Your task to perform on an android device: turn on wifi Image 0: 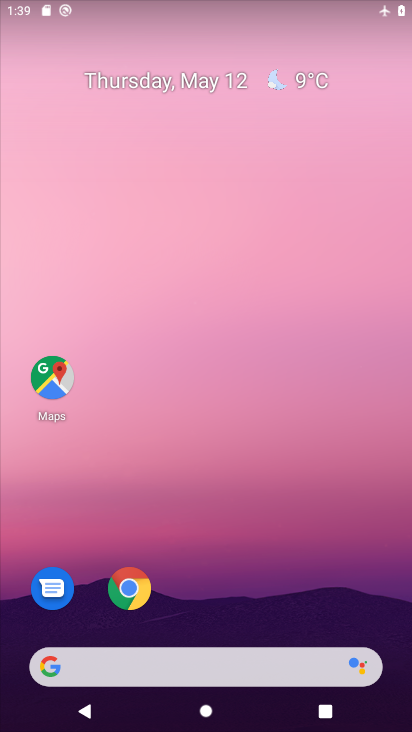
Step 0: drag from (274, 553) to (180, 46)
Your task to perform on an android device: turn on wifi Image 1: 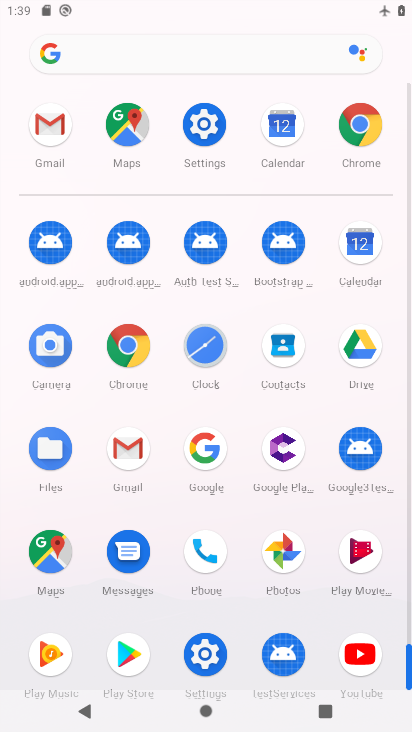
Step 1: click (209, 111)
Your task to perform on an android device: turn on wifi Image 2: 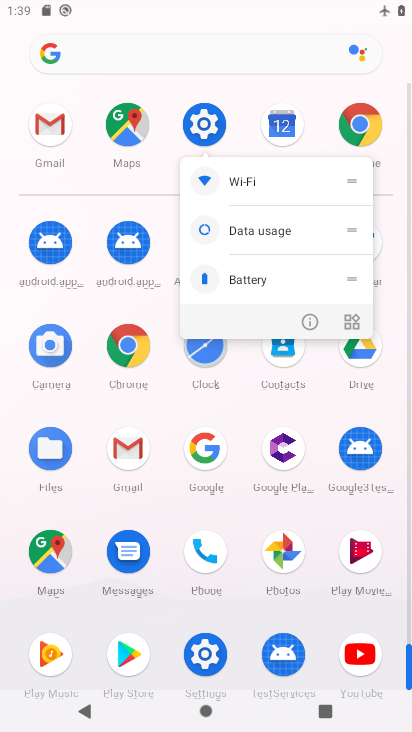
Step 2: click (214, 117)
Your task to perform on an android device: turn on wifi Image 3: 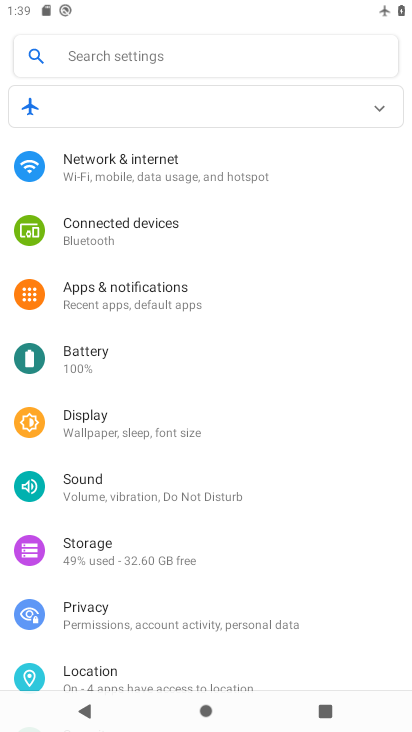
Step 3: click (190, 165)
Your task to perform on an android device: turn on wifi Image 4: 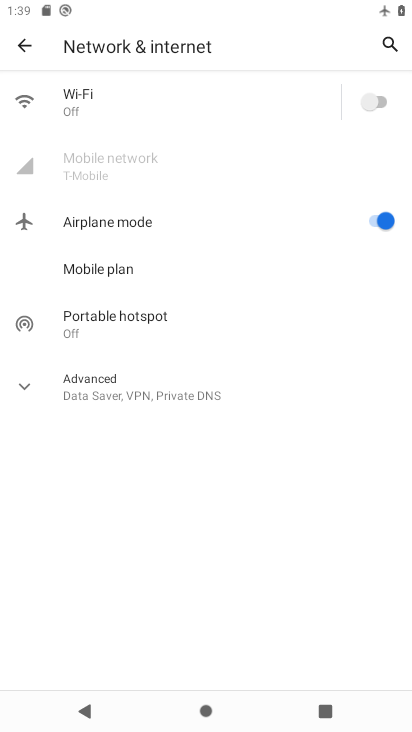
Step 4: click (382, 119)
Your task to perform on an android device: turn on wifi Image 5: 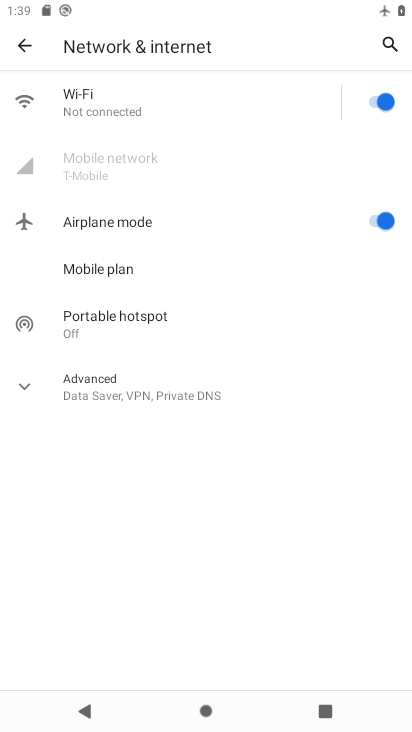
Step 5: task complete